Your task to perform on an android device: change the clock display to show seconds Image 0: 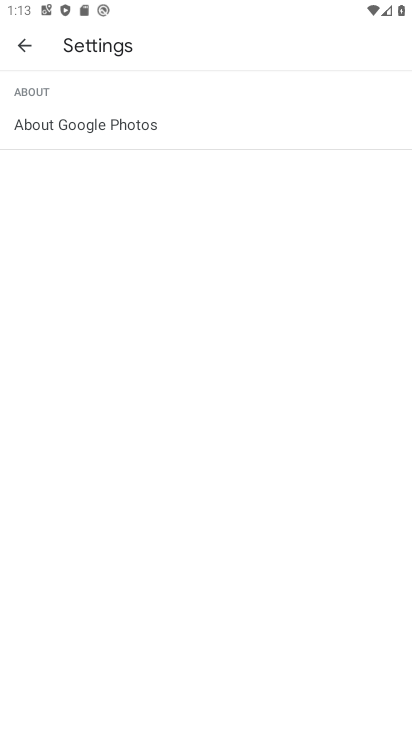
Step 0: press home button
Your task to perform on an android device: change the clock display to show seconds Image 1: 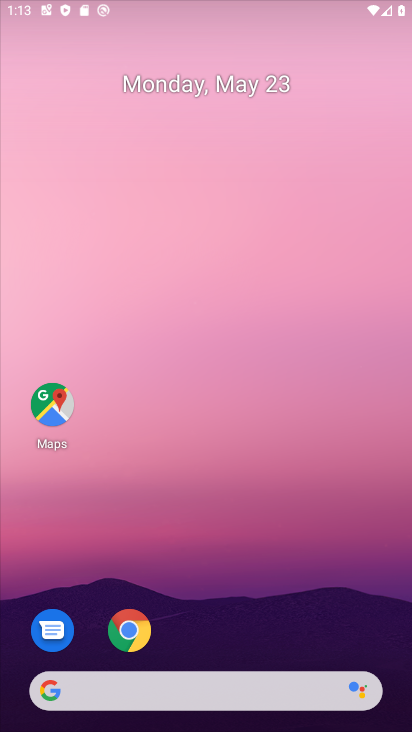
Step 1: drag from (208, 596) to (259, 90)
Your task to perform on an android device: change the clock display to show seconds Image 2: 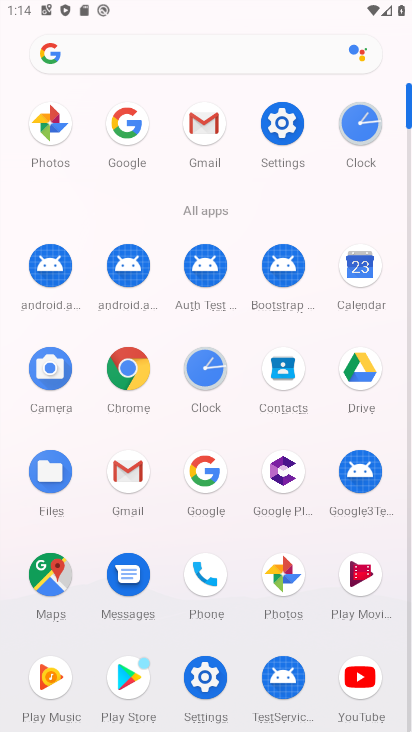
Step 2: click (207, 371)
Your task to perform on an android device: change the clock display to show seconds Image 3: 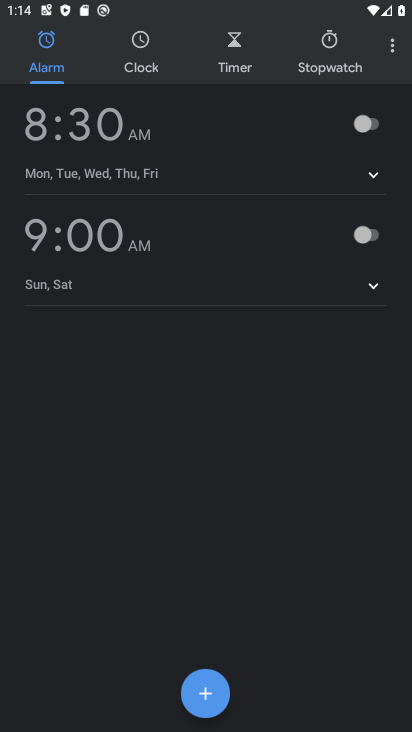
Step 3: click (382, 47)
Your task to perform on an android device: change the clock display to show seconds Image 4: 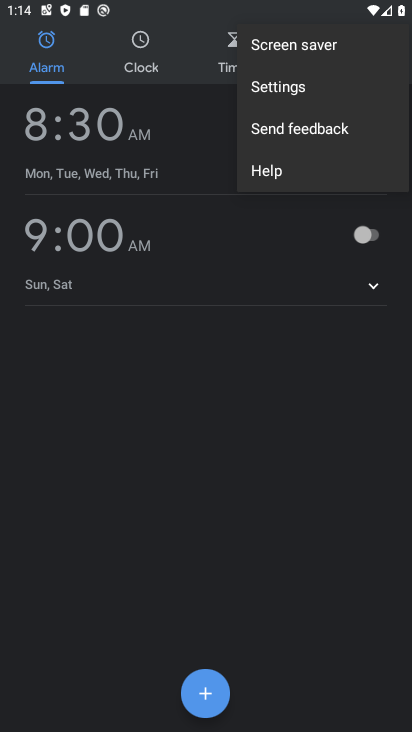
Step 4: click (292, 87)
Your task to perform on an android device: change the clock display to show seconds Image 5: 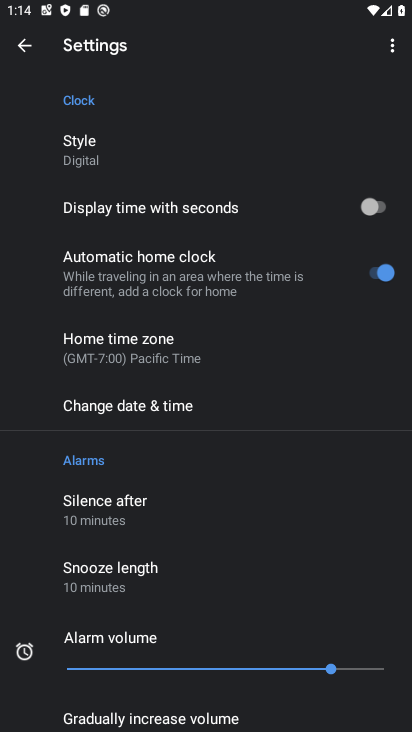
Step 5: click (385, 204)
Your task to perform on an android device: change the clock display to show seconds Image 6: 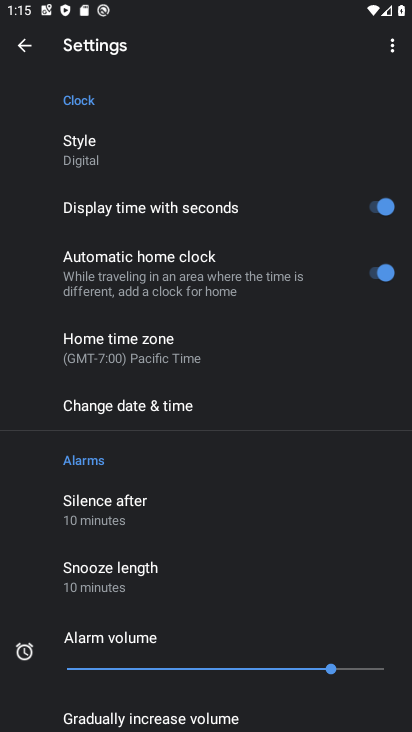
Step 6: task complete